Your task to perform on an android device: turn on the 24-hour format for clock Image 0: 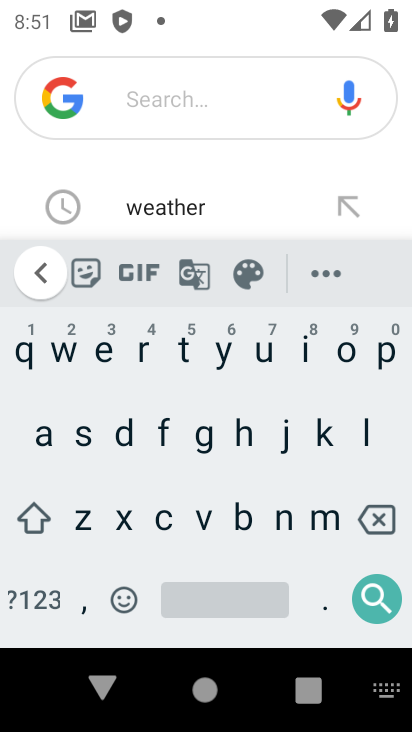
Step 0: press home button
Your task to perform on an android device: turn on the 24-hour format for clock Image 1: 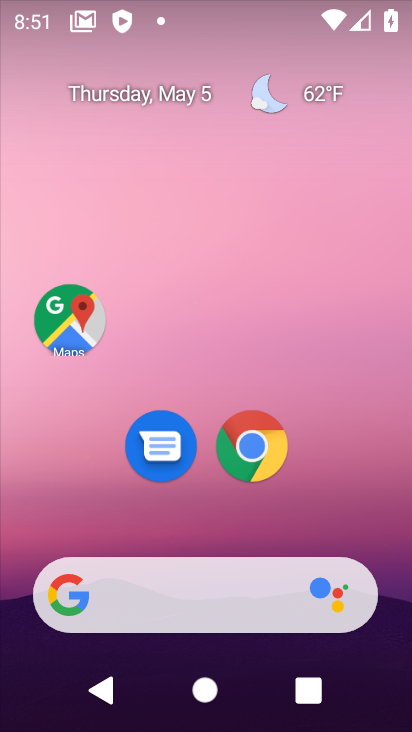
Step 1: drag from (240, 647) to (294, 221)
Your task to perform on an android device: turn on the 24-hour format for clock Image 2: 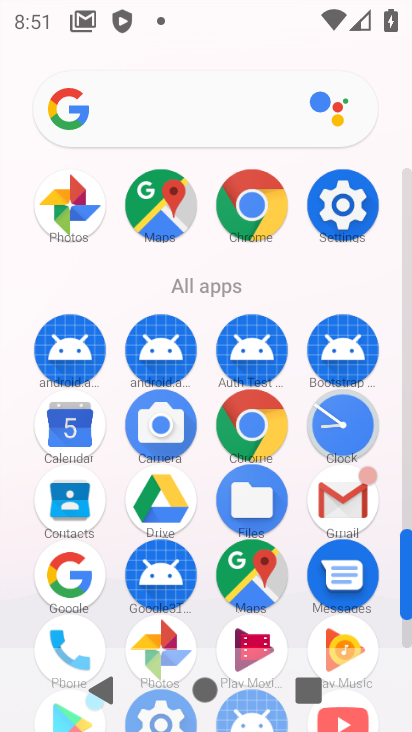
Step 2: click (341, 420)
Your task to perform on an android device: turn on the 24-hour format for clock Image 3: 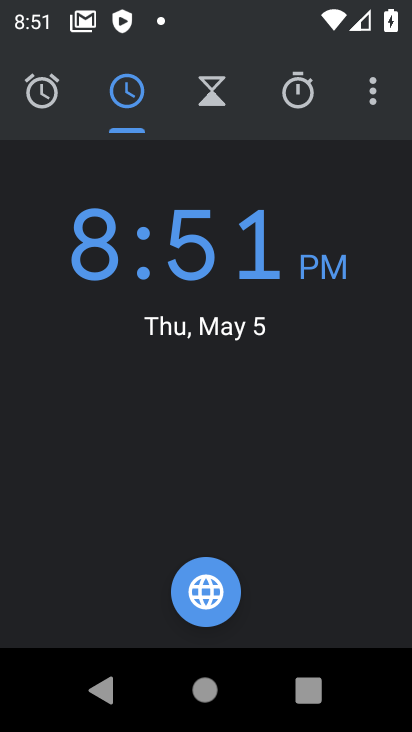
Step 3: click (367, 98)
Your task to perform on an android device: turn on the 24-hour format for clock Image 4: 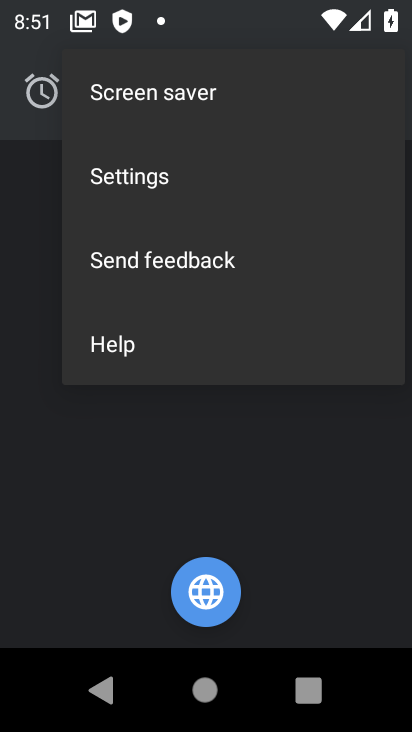
Step 4: click (153, 177)
Your task to perform on an android device: turn on the 24-hour format for clock Image 5: 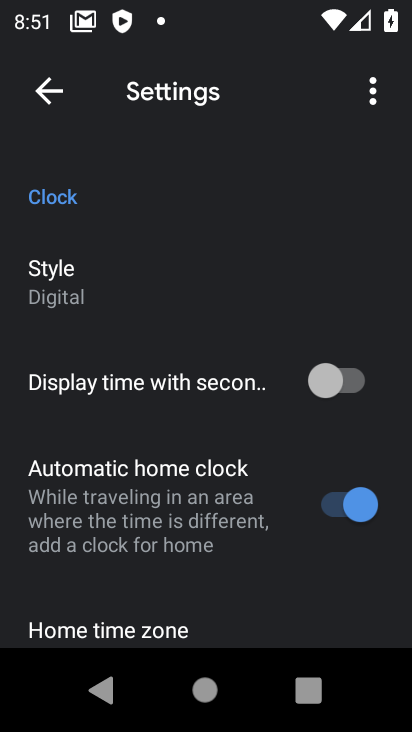
Step 5: drag from (161, 494) to (235, 217)
Your task to perform on an android device: turn on the 24-hour format for clock Image 6: 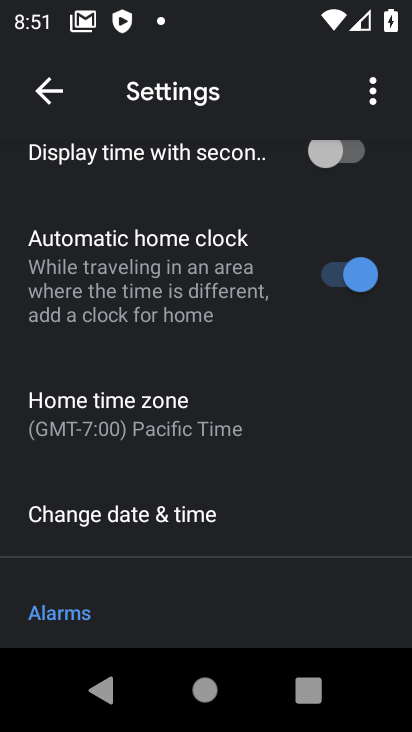
Step 6: click (181, 517)
Your task to perform on an android device: turn on the 24-hour format for clock Image 7: 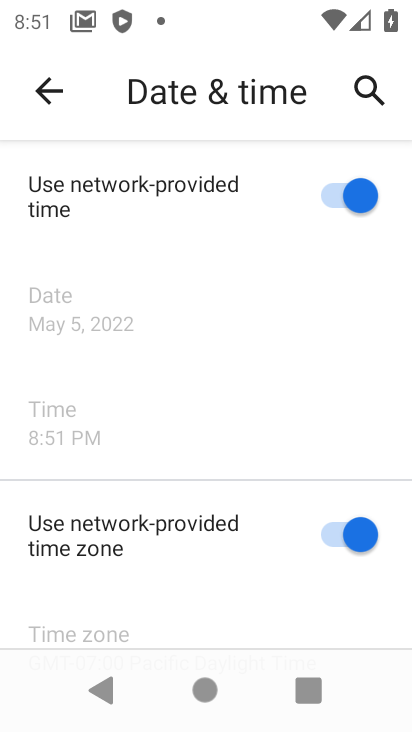
Step 7: drag from (238, 501) to (318, 252)
Your task to perform on an android device: turn on the 24-hour format for clock Image 8: 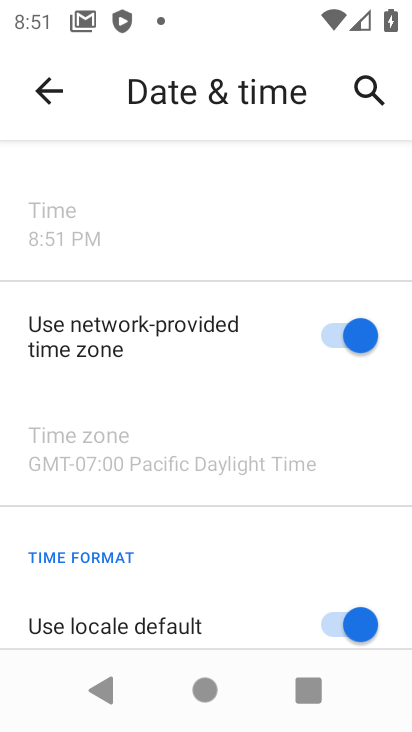
Step 8: click (334, 331)
Your task to perform on an android device: turn on the 24-hour format for clock Image 9: 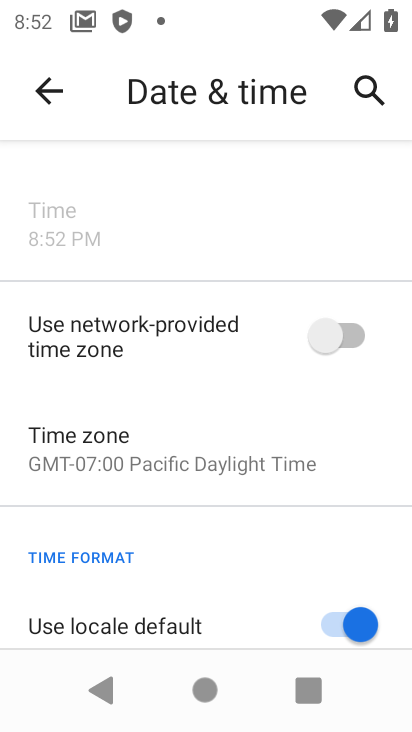
Step 9: drag from (261, 418) to (341, 216)
Your task to perform on an android device: turn on the 24-hour format for clock Image 10: 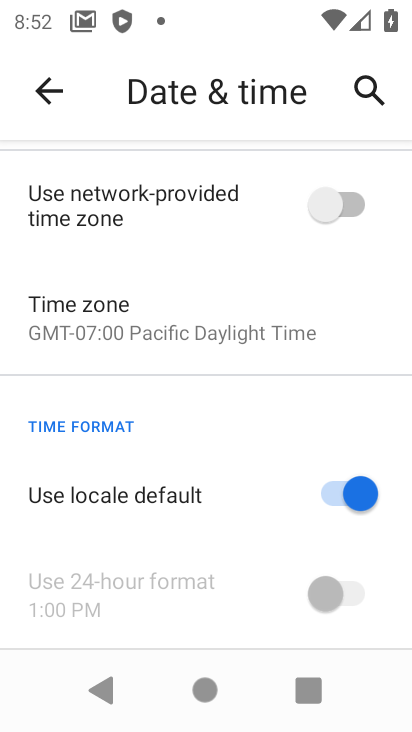
Step 10: click (369, 474)
Your task to perform on an android device: turn on the 24-hour format for clock Image 11: 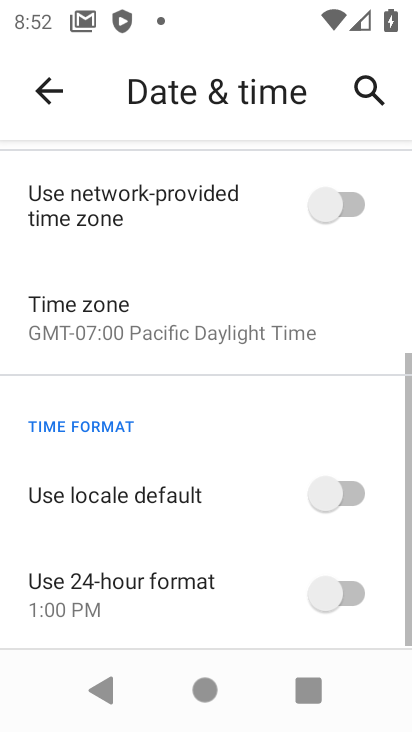
Step 11: click (337, 600)
Your task to perform on an android device: turn on the 24-hour format for clock Image 12: 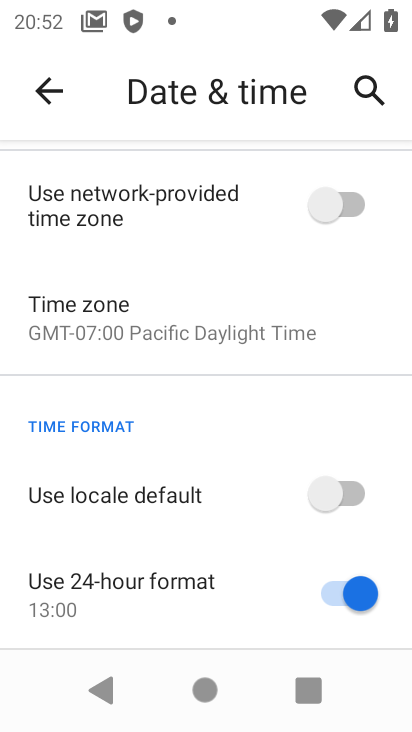
Step 12: task complete